Your task to perform on an android device: Search for coffee table on Crate & Barrel Image 0: 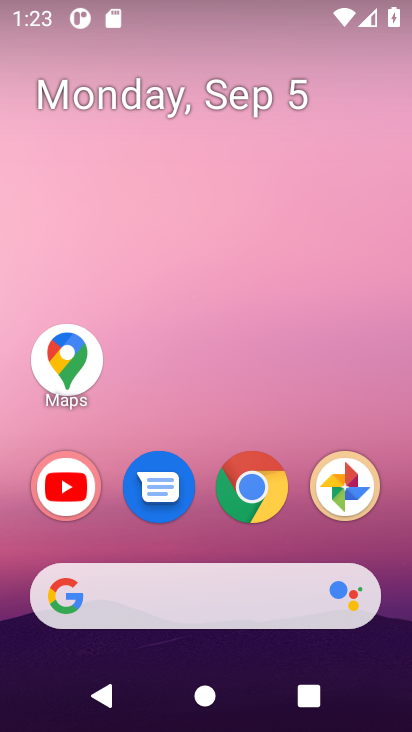
Step 0: click (256, 505)
Your task to perform on an android device: Search for coffee table on Crate & Barrel Image 1: 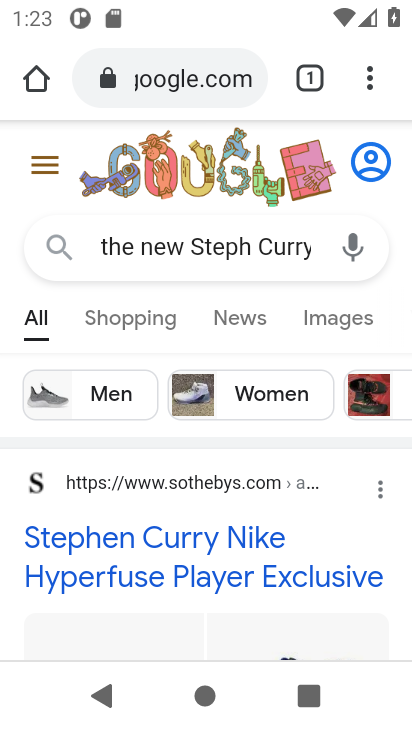
Step 1: click (135, 81)
Your task to perform on an android device: Search for coffee table on Crate & Barrel Image 2: 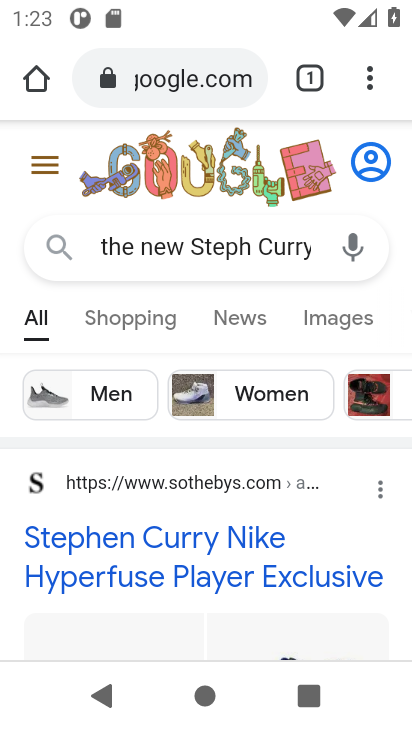
Step 2: click (163, 75)
Your task to perform on an android device: Search for coffee table on Crate & Barrel Image 3: 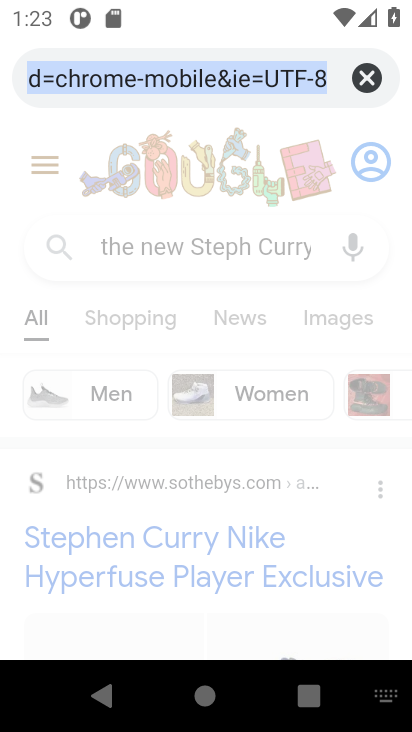
Step 3: click (360, 78)
Your task to perform on an android device: Search for coffee table on Crate & Barrel Image 4: 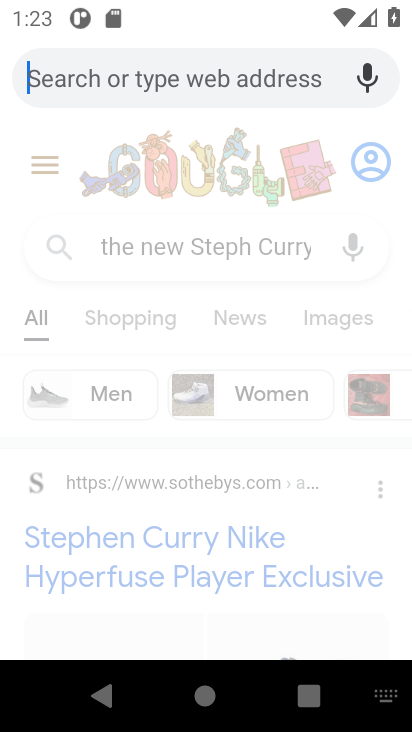
Step 4: type "coffee table on Crate & Barrel"
Your task to perform on an android device: Search for coffee table on Crate & Barrel Image 5: 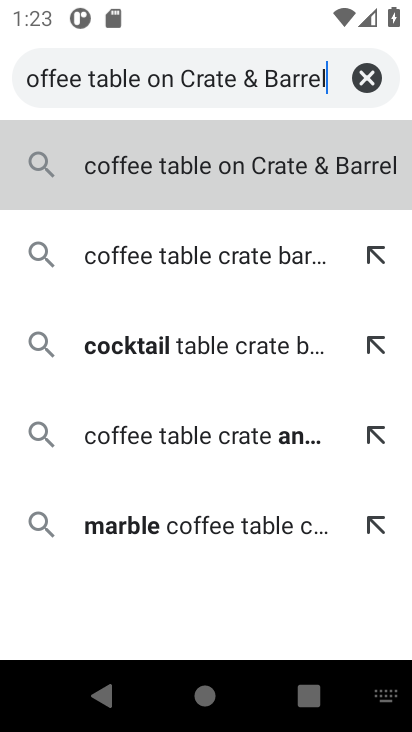
Step 5: click (235, 173)
Your task to perform on an android device: Search for coffee table on Crate & Barrel Image 6: 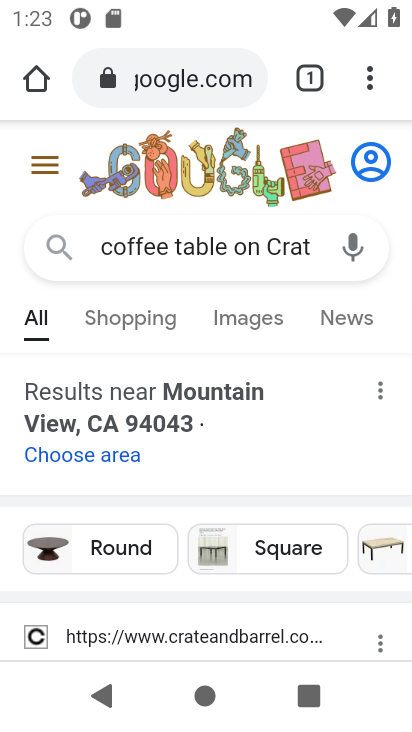
Step 6: task complete